Your task to perform on an android device: add a label to a message in the gmail app Image 0: 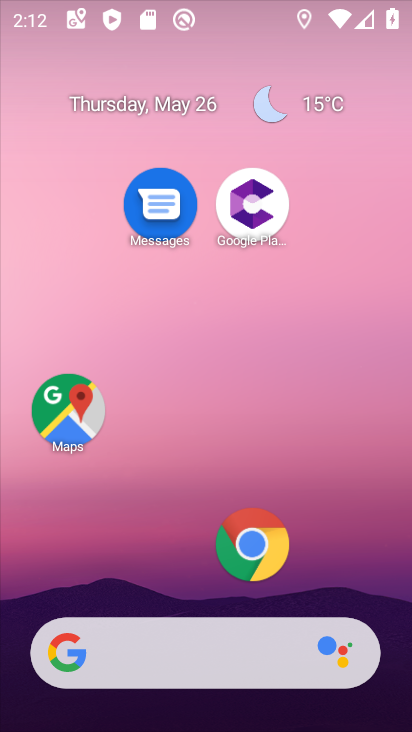
Step 0: click (250, 539)
Your task to perform on an android device: add a label to a message in the gmail app Image 1: 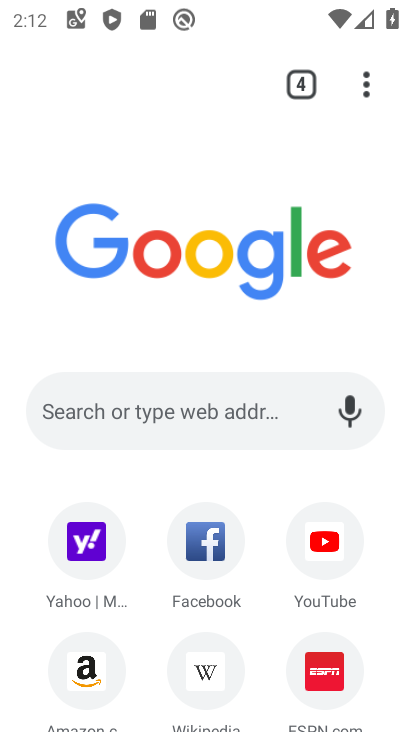
Step 1: press home button
Your task to perform on an android device: add a label to a message in the gmail app Image 2: 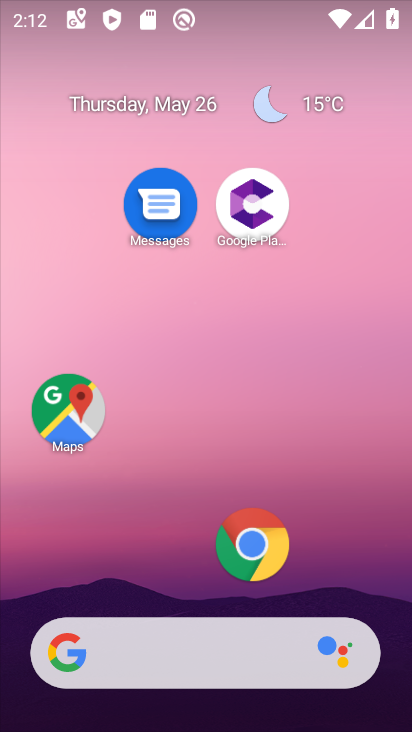
Step 2: drag from (144, 562) to (228, 22)
Your task to perform on an android device: add a label to a message in the gmail app Image 3: 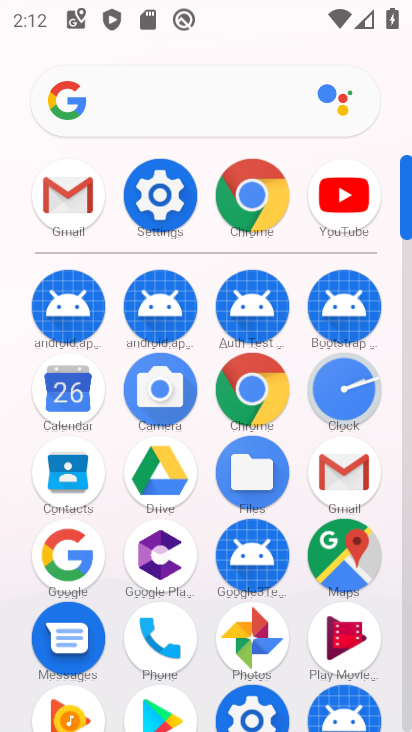
Step 3: click (66, 186)
Your task to perform on an android device: add a label to a message in the gmail app Image 4: 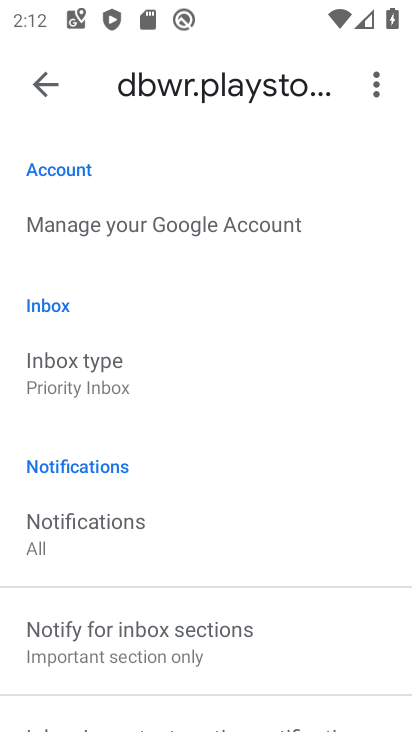
Step 4: click (44, 82)
Your task to perform on an android device: add a label to a message in the gmail app Image 5: 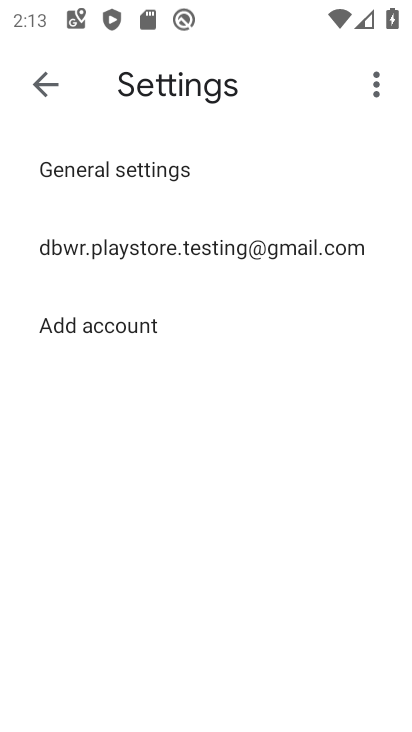
Step 5: click (44, 82)
Your task to perform on an android device: add a label to a message in the gmail app Image 6: 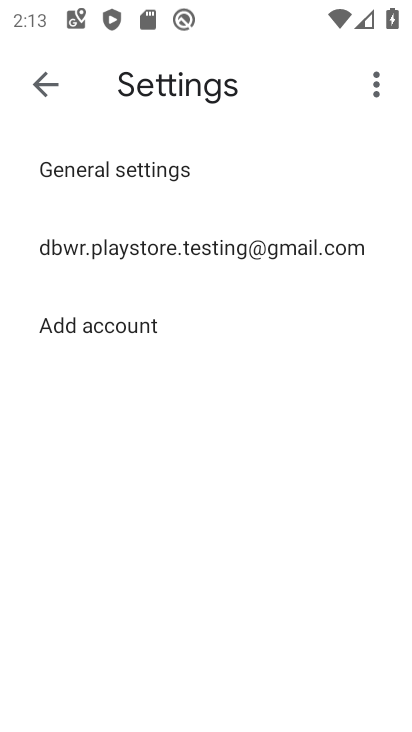
Step 6: click (44, 82)
Your task to perform on an android device: add a label to a message in the gmail app Image 7: 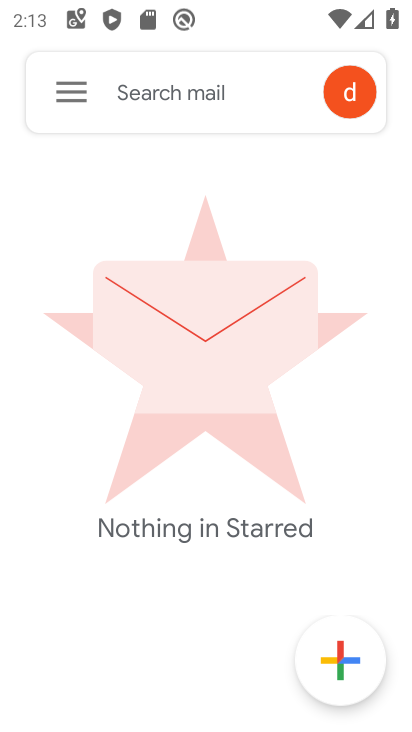
Step 7: click (68, 83)
Your task to perform on an android device: add a label to a message in the gmail app Image 8: 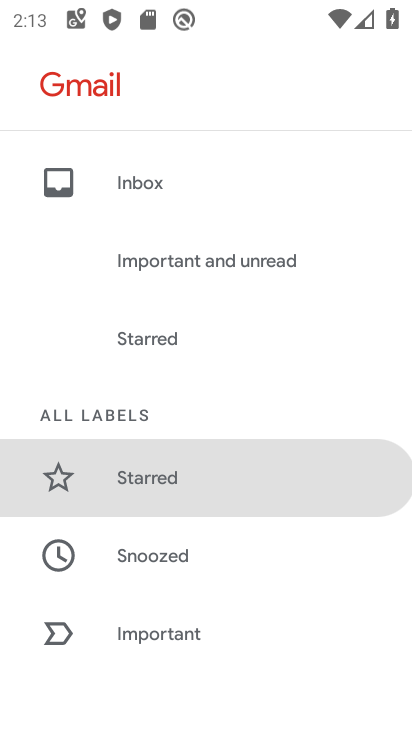
Step 8: click (73, 199)
Your task to perform on an android device: add a label to a message in the gmail app Image 9: 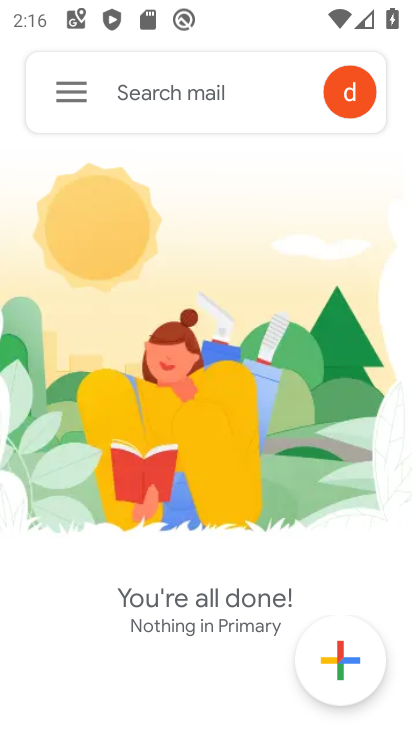
Step 9: task complete